Your task to perform on an android device: turn on priority inbox in the gmail app Image 0: 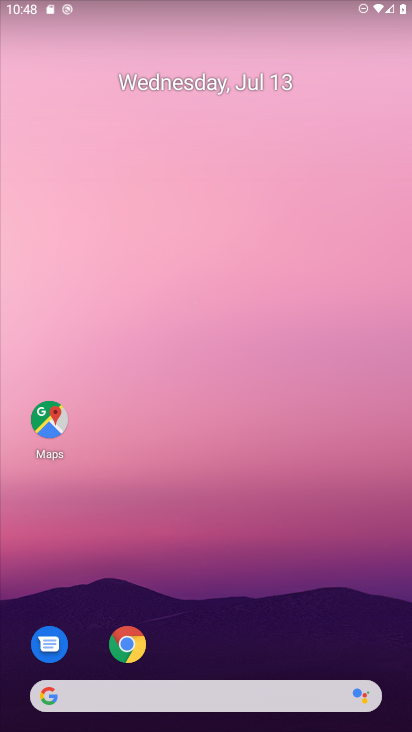
Step 0: drag from (251, 572) to (205, 116)
Your task to perform on an android device: turn on priority inbox in the gmail app Image 1: 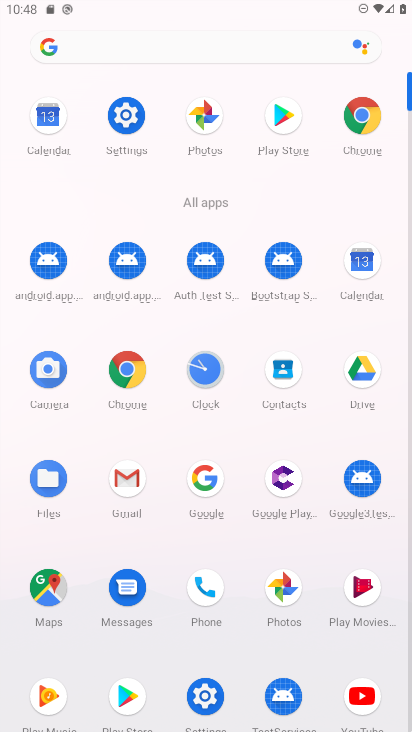
Step 1: click (120, 481)
Your task to perform on an android device: turn on priority inbox in the gmail app Image 2: 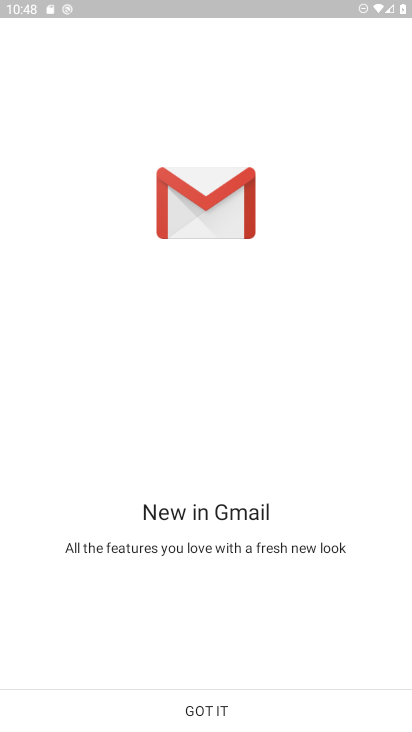
Step 2: click (226, 712)
Your task to perform on an android device: turn on priority inbox in the gmail app Image 3: 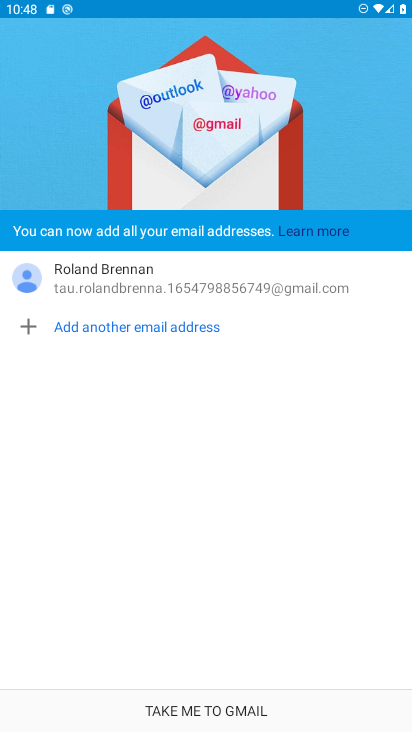
Step 3: click (226, 712)
Your task to perform on an android device: turn on priority inbox in the gmail app Image 4: 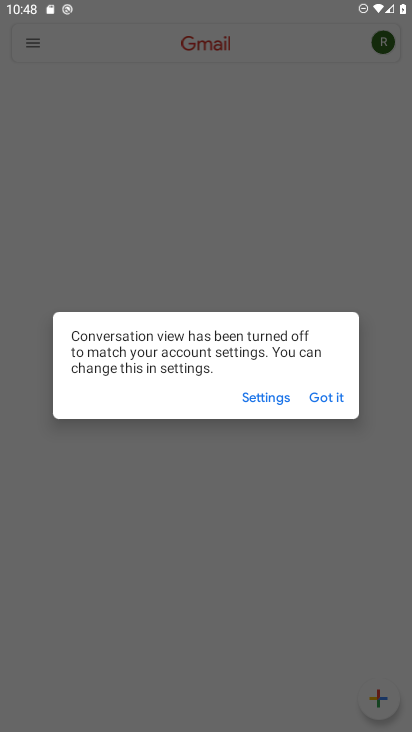
Step 4: click (325, 396)
Your task to perform on an android device: turn on priority inbox in the gmail app Image 5: 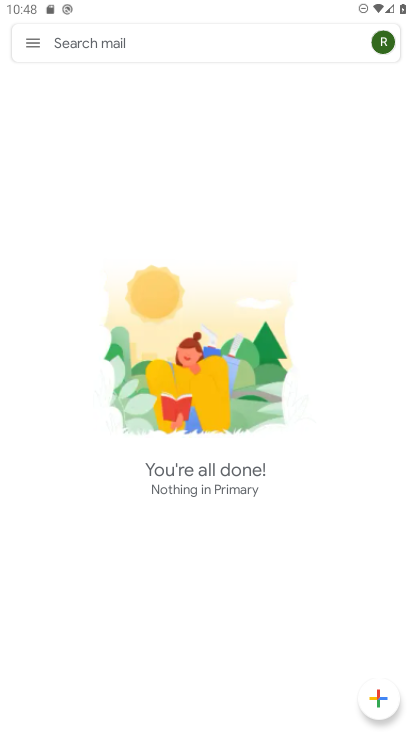
Step 5: click (34, 39)
Your task to perform on an android device: turn on priority inbox in the gmail app Image 6: 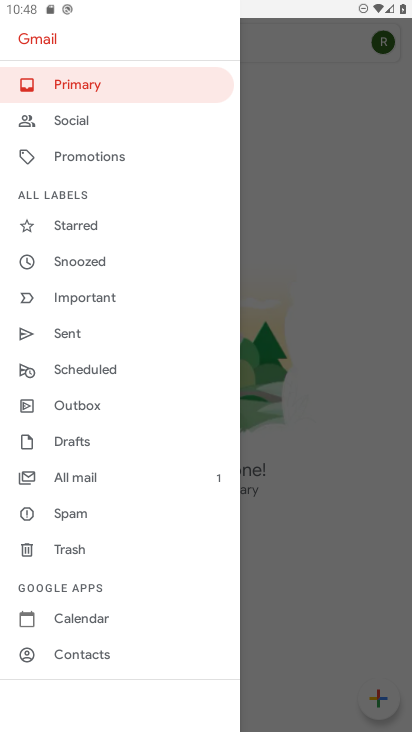
Step 6: drag from (187, 577) to (149, 178)
Your task to perform on an android device: turn on priority inbox in the gmail app Image 7: 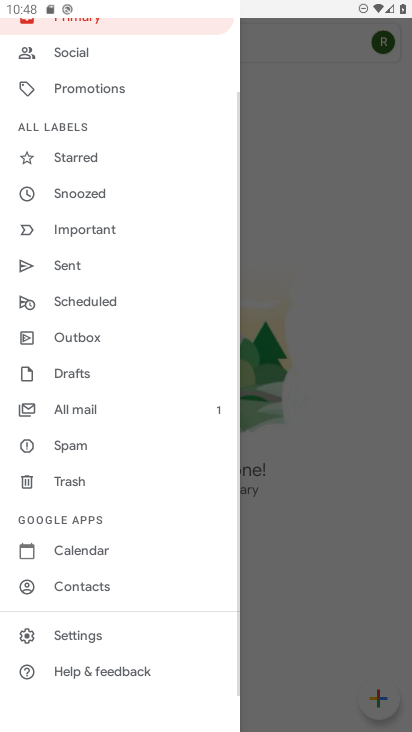
Step 7: click (74, 630)
Your task to perform on an android device: turn on priority inbox in the gmail app Image 8: 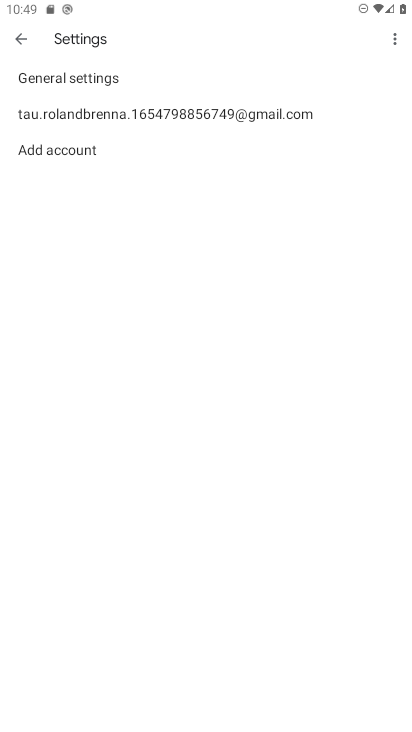
Step 8: click (55, 112)
Your task to perform on an android device: turn on priority inbox in the gmail app Image 9: 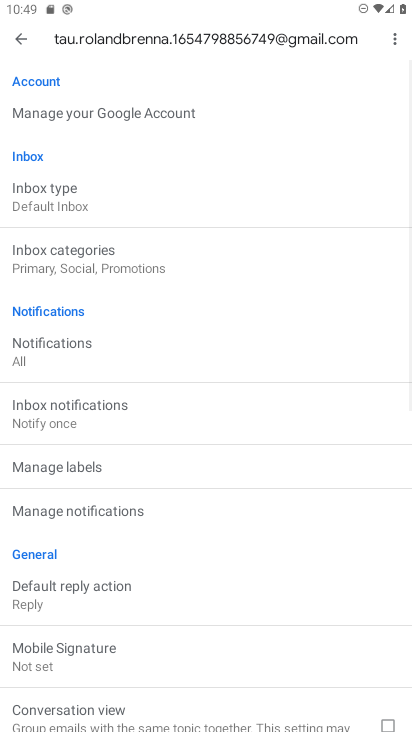
Step 9: click (50, 199)
Your task to perform on an android device: turn on priority inbox in the gmail app Image 10: 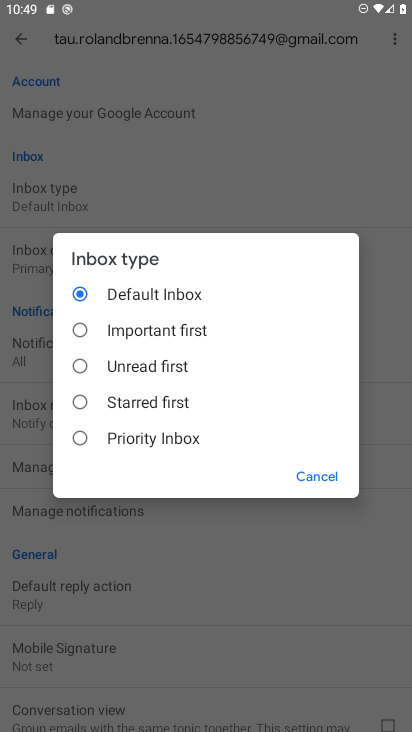
Step 10: click (74, 438)
Your task to perform on an android device: turn on priority inbox in the gmail app Image 11: 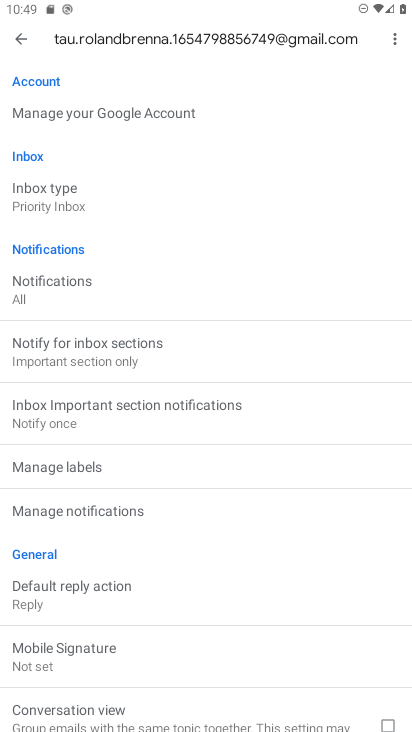
Step 11: task complete